Your task to perform on an android device: turn off data saver in the chrome app Image 0: 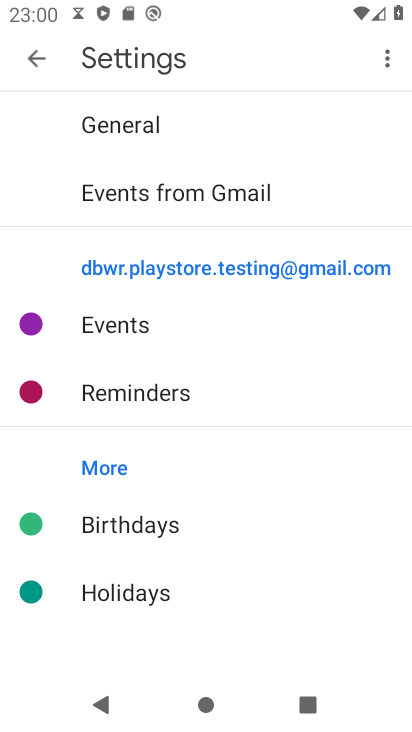
Step 0: drag from (246, 494) to (272, 134)
Your task to perform on an android device: turn off data saver in the chrome app Image 1: 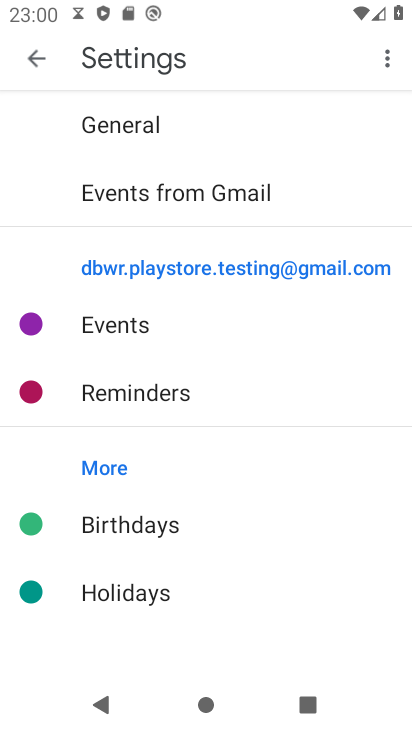
Step 1: press home button
Your task to perform on an android device: turn off data saver in the chrome app Image 2: 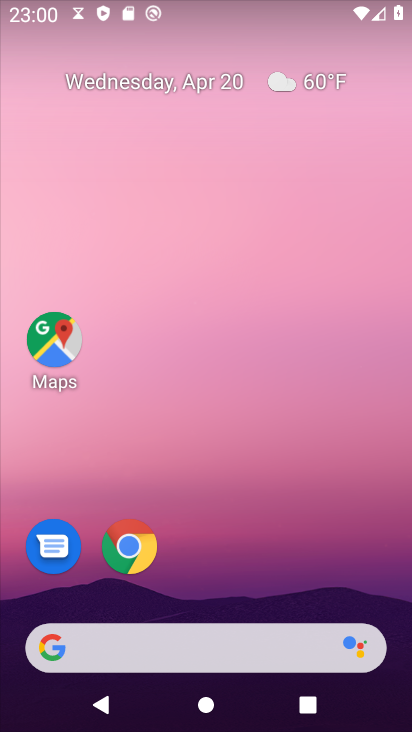
Step 2: click (138, 545)
Your task to perform on an android device: turn off data saver in the chrome app Image 3: 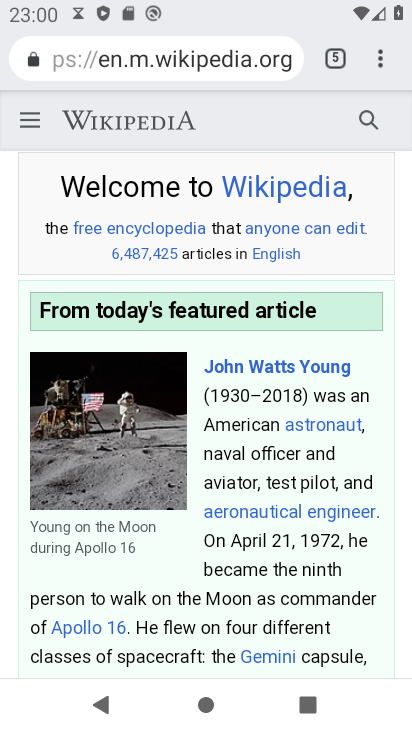
Step 3: click (379, 55)
Your task to perform on an android device: turn off data saver in the chrome app Image 4: 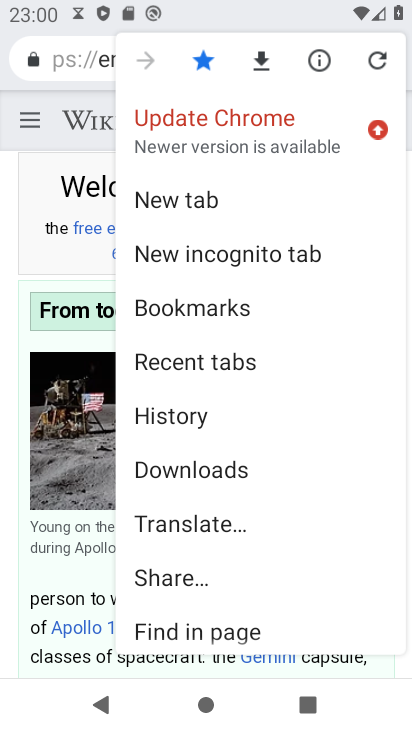
Step 4: drag from (271, 468) to (290, 161)
Your task to perform on an android device: turn off data saver in the chrome app Image 5: 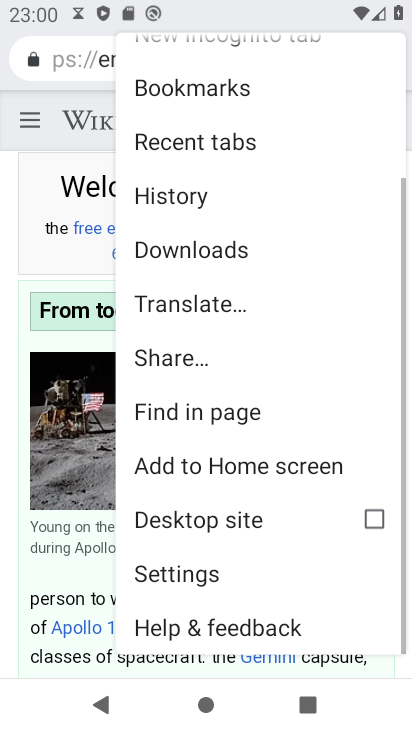
Step 5: click (243, 579)
Your task to perform on an android device: turn off data saver in the chrome app Image 6: 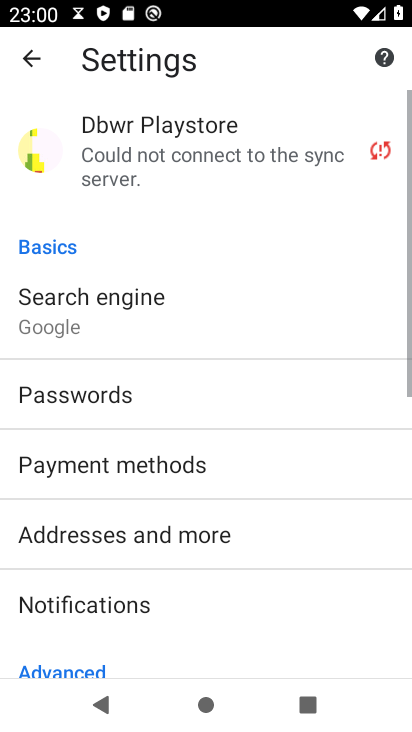
Step 6: drag from (181, 587) to (218, 167)
Your task to perform on an android device: turn off data saver in the chrome app Image 7: 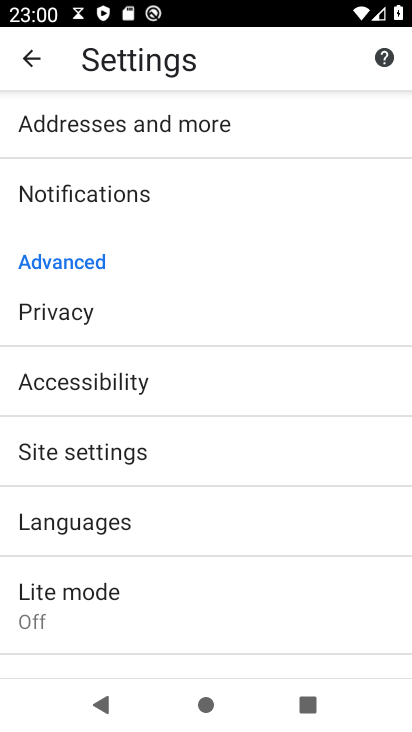
Step 7: click (119, 598)
Your task to perform on an android device: turn off data saver in the chrome app Image 8: 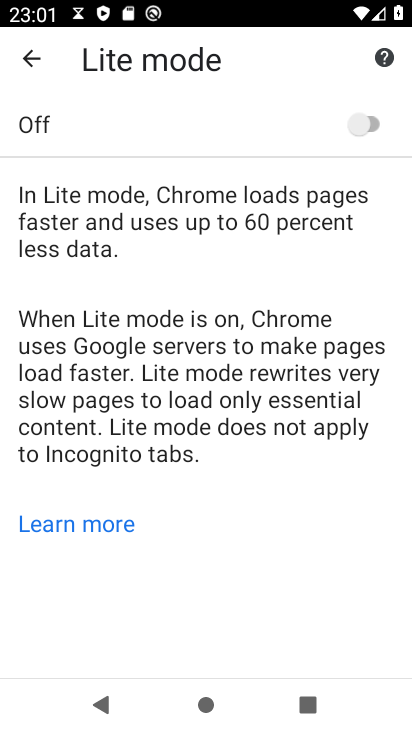
Step 8: task complete